Your task to perform on an android device: Open privacy settings Image 0: 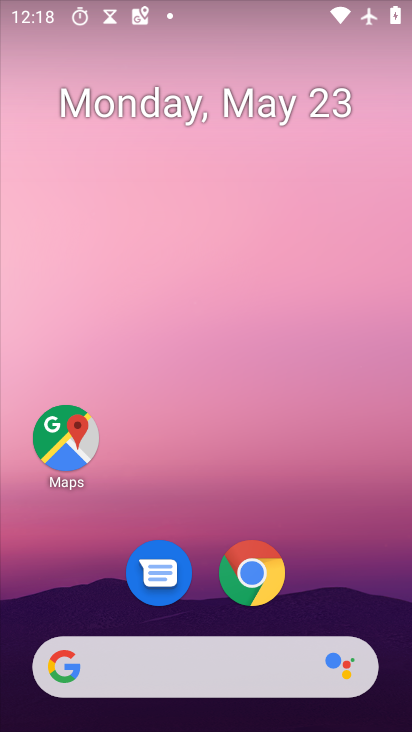
Step 0: press home button
Your task to perform on an android device: Open privacy settings Image 1: 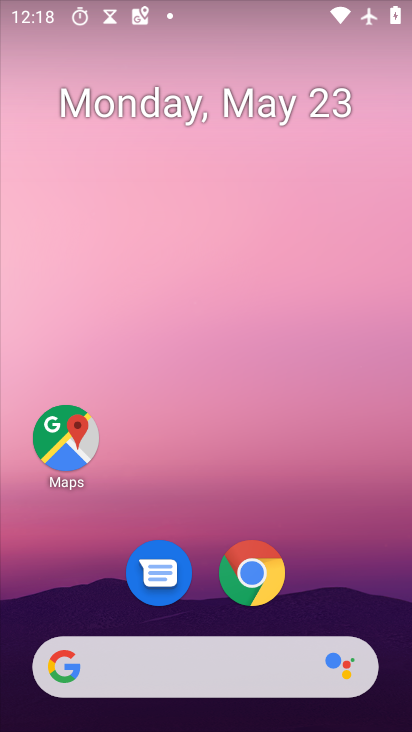
Step 1: drag from (163, 685) to (326, 159)
Your task to perform on an android device: Open privacy settings Image 2: 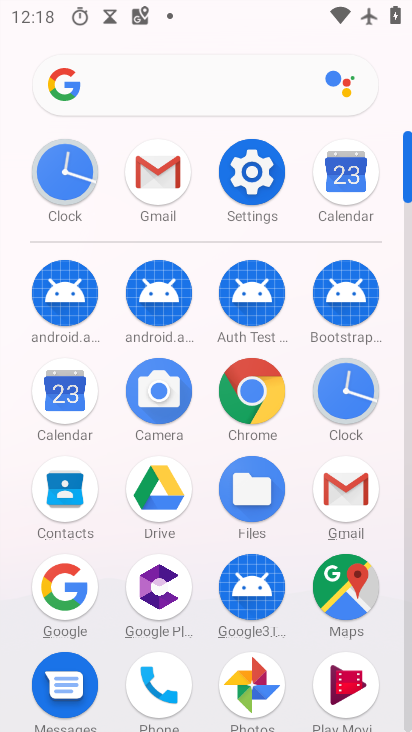
Step 2: click (268, 181)
Your task to perform on an android device: Open privacy settings Image 3: 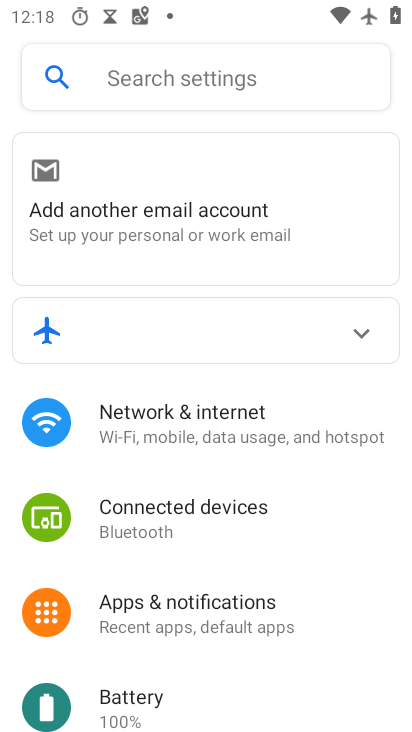
Step 3: drag from (227, 672) to (331, 234)
Your task to perform on an android device: Open privacy settings Image 4: 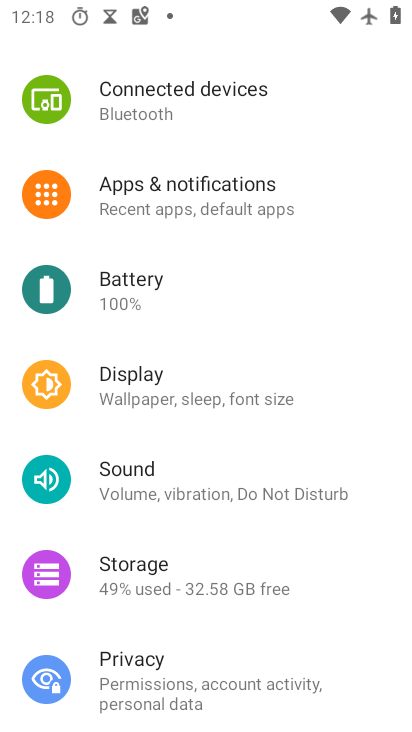
Step 4: click (147, 675)
Your task to perform on an android device: Open privacy settings Image 5: 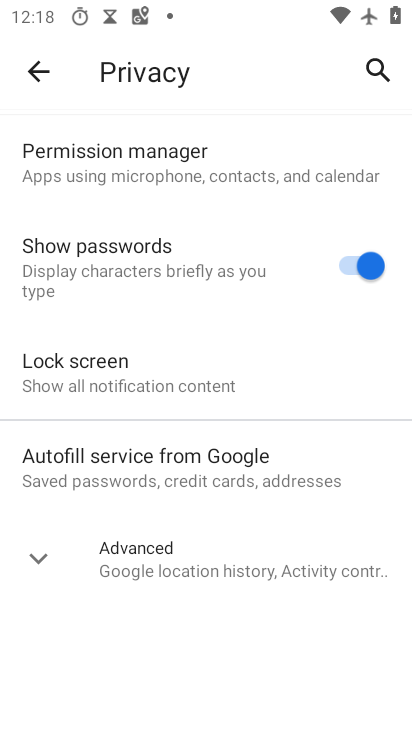
Step 5: task complete